Your task to perform on an android device: Open the phone app and click the voicemail tab. Image 0: 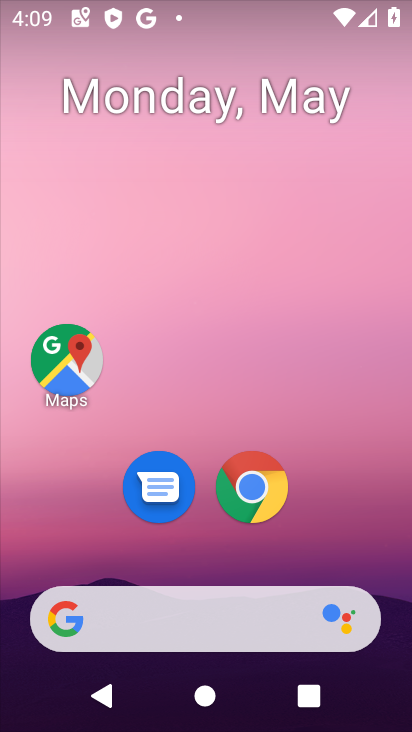
Step 0: drag from (348, 480) to (353, 4)
Your task to perform on an android device: Open the phone app and click the voicemail tab. Image 1: 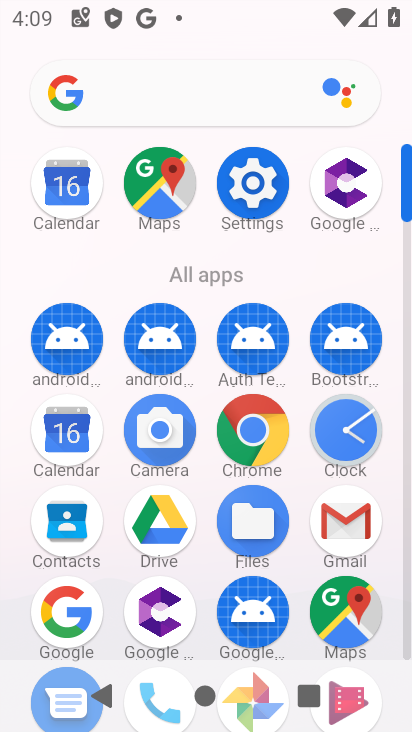
Step 1: click (405, 476)
Your task to perform on an android device: Open the phone app and click the voicemail tab. Image 2: 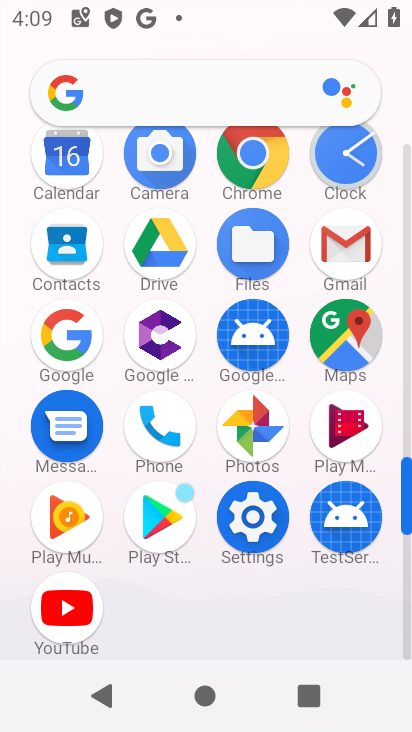
Step 2: click (156, 442)
Your task to perform on an android device: Open the phone app and click the voicemail tab. Image 3: 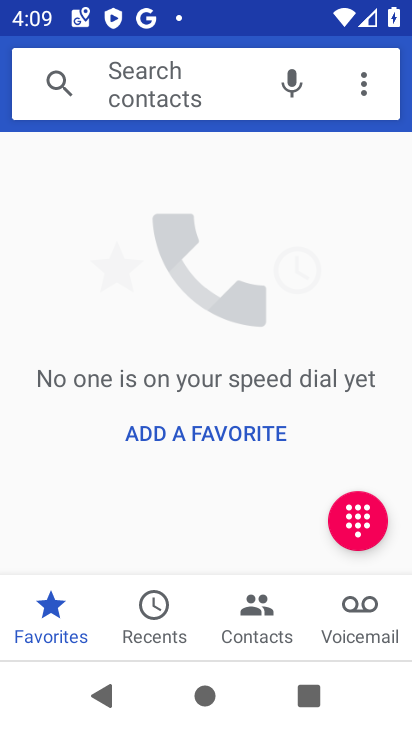
Step 3: click (358, 640)
Your task to perform on an android device: Open the phone app and click the voicemail tab. Image 4: 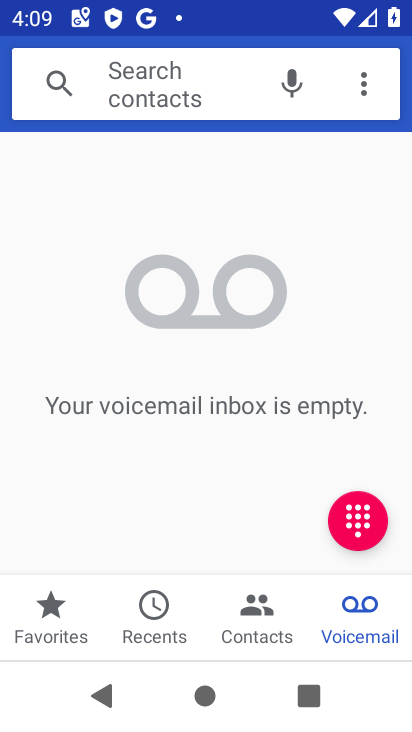
Step 4: task complete